Your task to perform on an android device: see sites visited before in the chrome app Image 0: 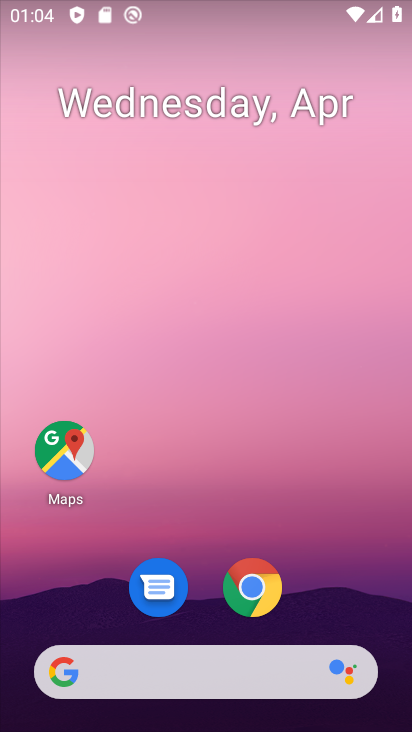
Step 0: click (245, 589)
Your task to perform on an android device: see sites visited before in the chrome app Image 1: 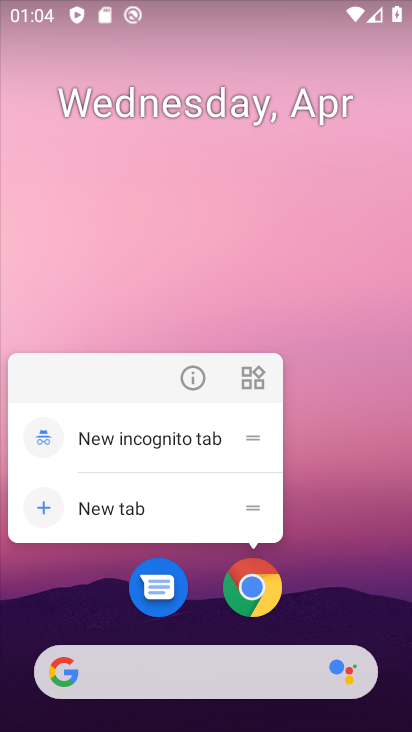
Step 1: click (246, 589)
Your task to perform on an android device: see sites visited before in the chrome app Image 2: 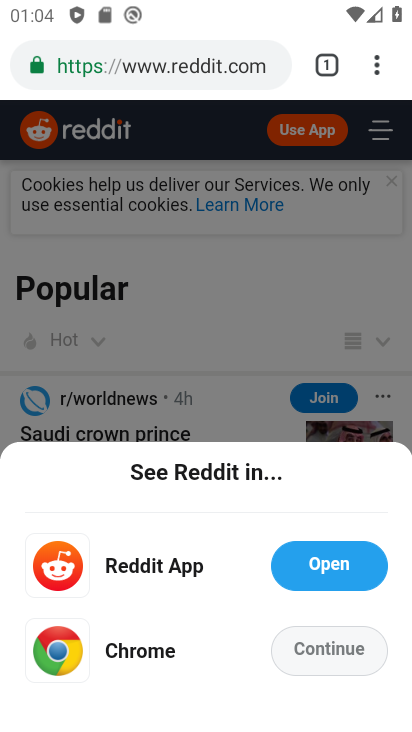
Step 2: click (378, 66)
Your task to perform on an android device: see sites visited before in the chrome app Image 3: 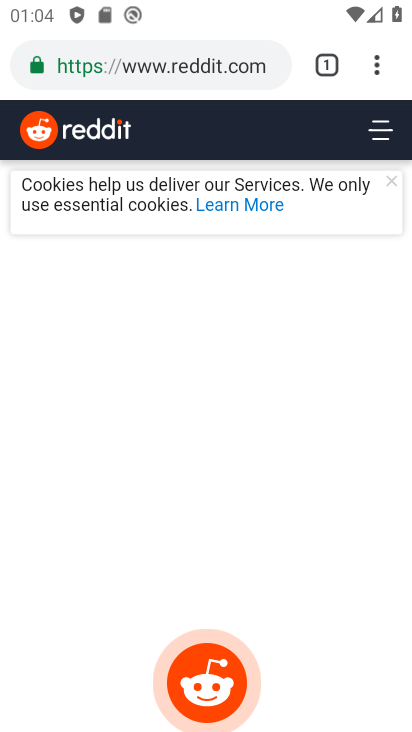
Step 3: click (378, 64)
Your task to perform on an android device: see sites visited before in the chrome app Image 4: 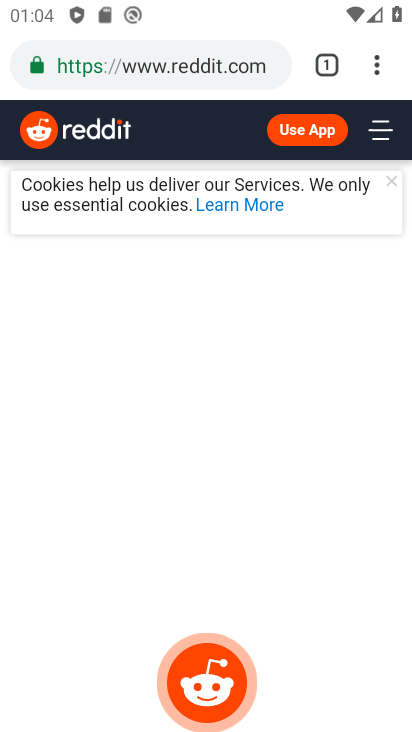
Step 4: click (378, 64)
Your task to perform on an android device: see sites visited before in the chrome app Image 5: 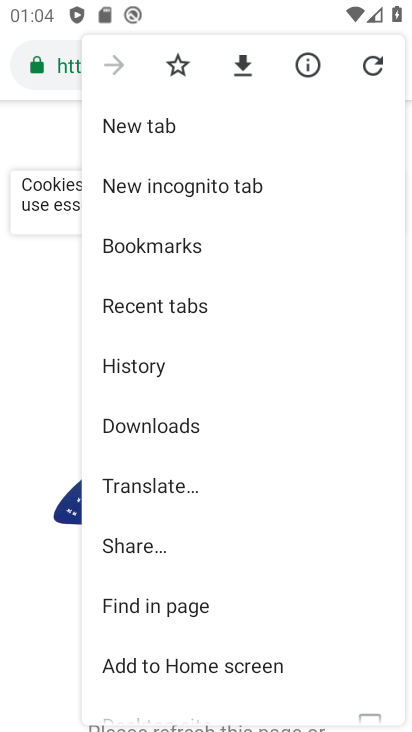
Step 5: click (141, 366)
Your task to perform on an android device: see sites visited before in the chrome app Image 6: 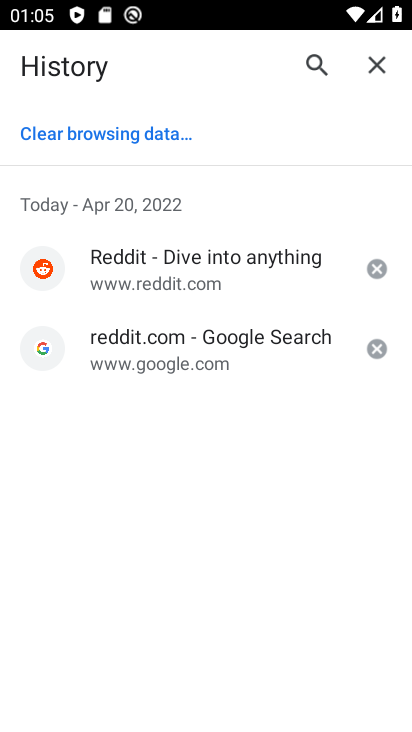
Step 6: task complete